Your task to perform on an android device: Search for pizza restaurants on Maps Image 0: 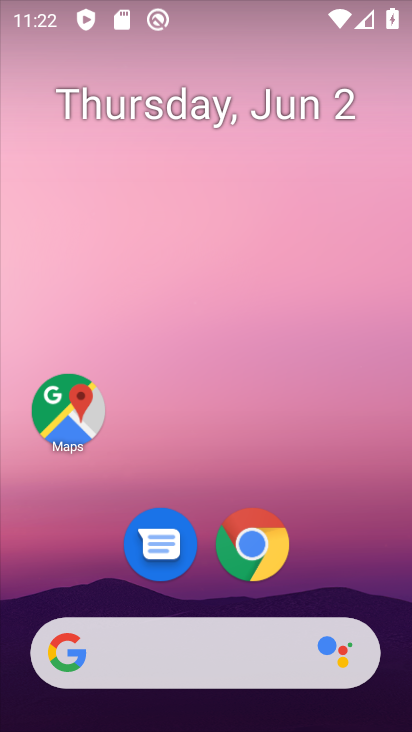
Step 0: click (59, 433)
Your task to perform on an android device: Search for pizza restaurants on Maps Image 1: 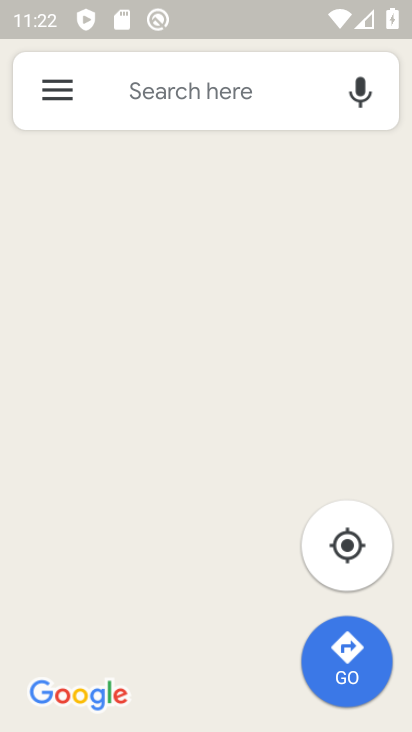
Step 1: click (203, 98)
Your task to perform on an android device: Search for pizza restaurants on Maps Image 2: 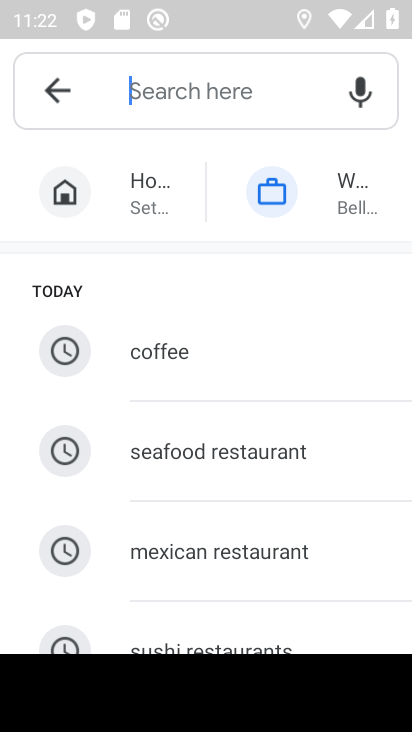
Step 2: task complete